Your task to perform on an android device: uninstall "PlayWell" Image 0: 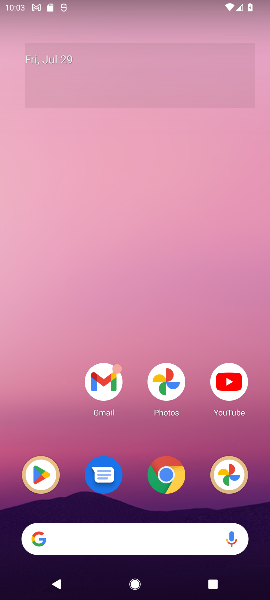
Step 0: drag from (195, 321) to (165, 25)
Your task to perform on an android device: uninstall "PlayWell" Image 1: 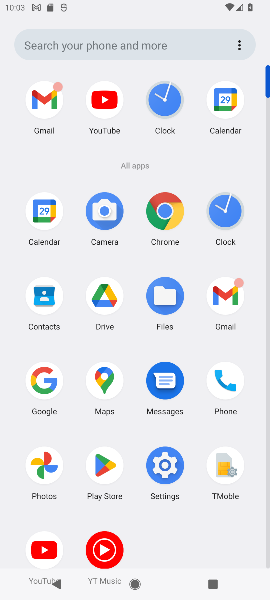
Step 1: click (98, 462)
Your task to perform on an android device: uninstall "PlayWell" Image 2: 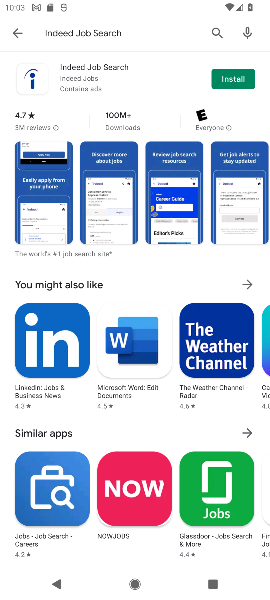
Step 2: click (85, 28)
Your task to perform on an android device: uninstall "PlayWell" Image 3: 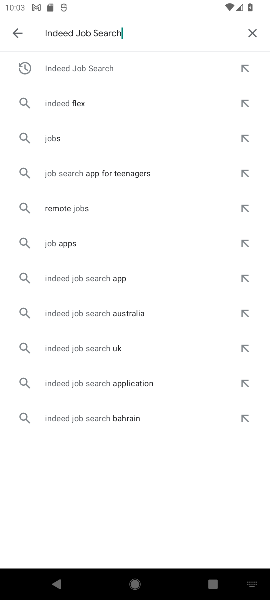
Step 3: click (252, 26)
Your task to perform on an android device: uninstall "PlayWell" Image 4: 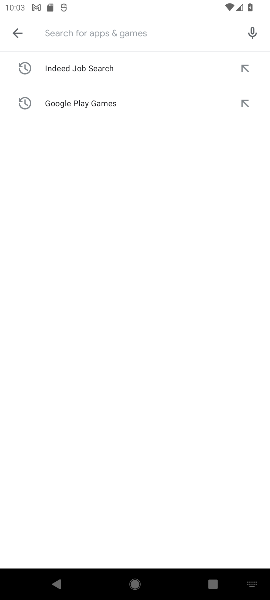
Step 4: type "PlayWell"
Your task to perform on an android device: uninstall "PlayWell" Image 5: 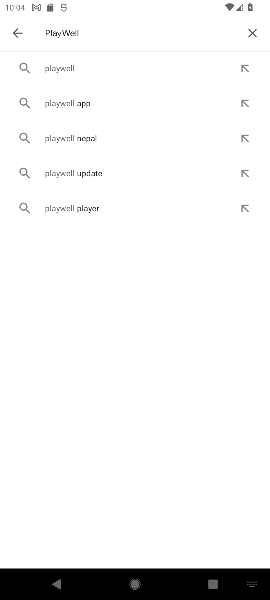
Step 5: press enter
Your task to perform on an android device: uninstall "PlayWell" Image 6: 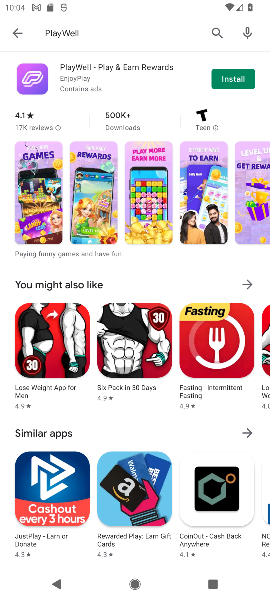
Step 6: task complete